Your task to perform on an android device: Open Google Maps Image 0: 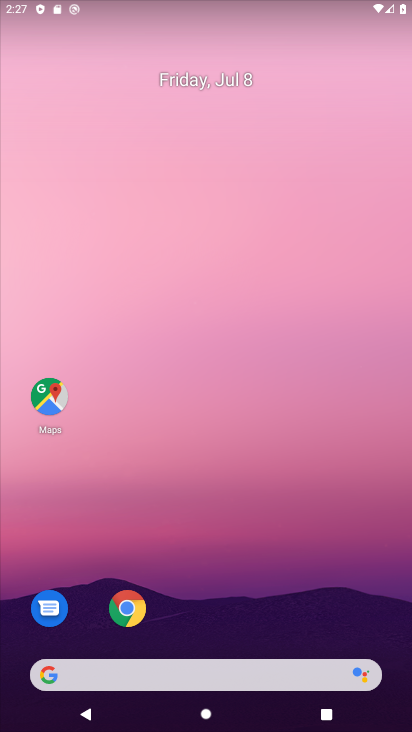
Step 0: click (49, 402)
Your task to perform on an android device: Open Google Maps Image 1: 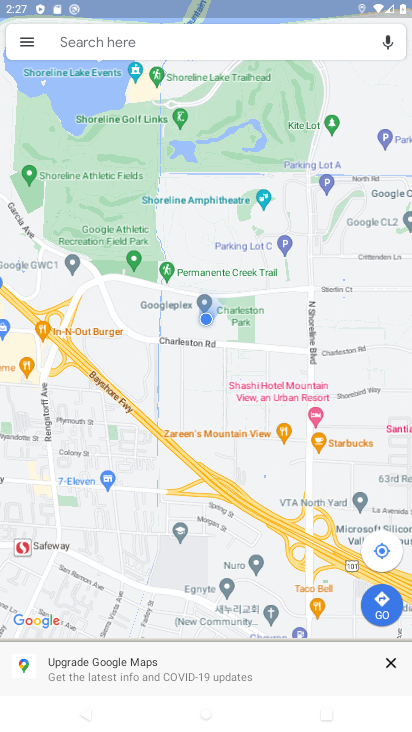
Step 1: task complete